Your task to perform on an android device: Search for Italian restaurants on Maps Image 0: 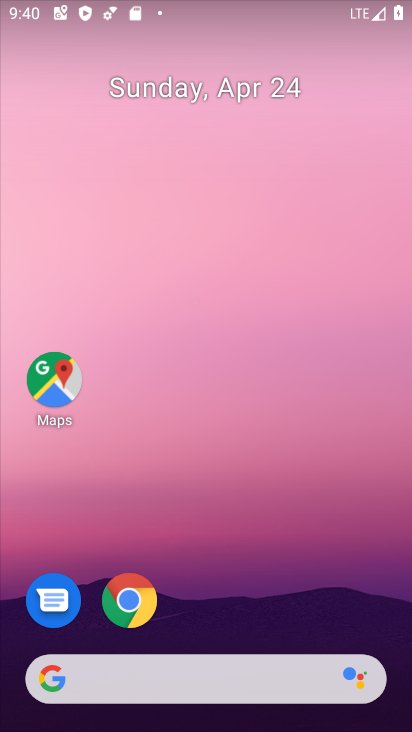
Step 0: click (136, 605)
Your task to perform on an android device: Search for Italian restaurants on Maps Image 1: 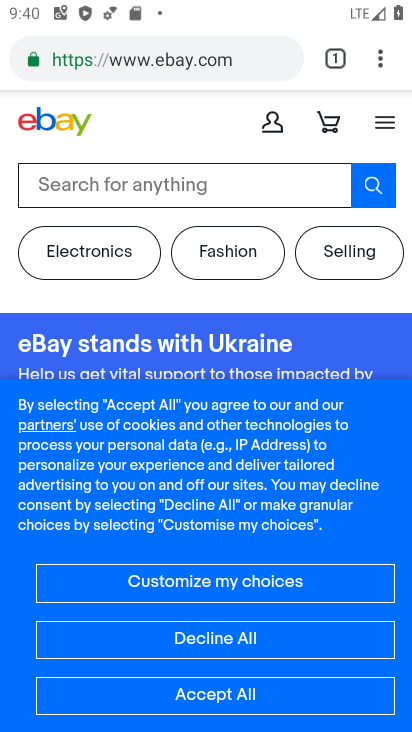
Step 1: press home button
Your task to perform on an android device: Search for Italian restaurants on Maps Image 2: 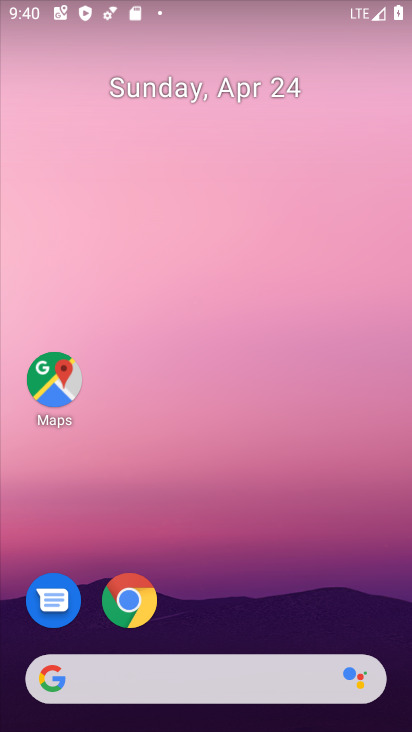
Step 2: click (63, 365)
Your task to perform on an android device: Search for Italian restaurants on Maps Image 3: 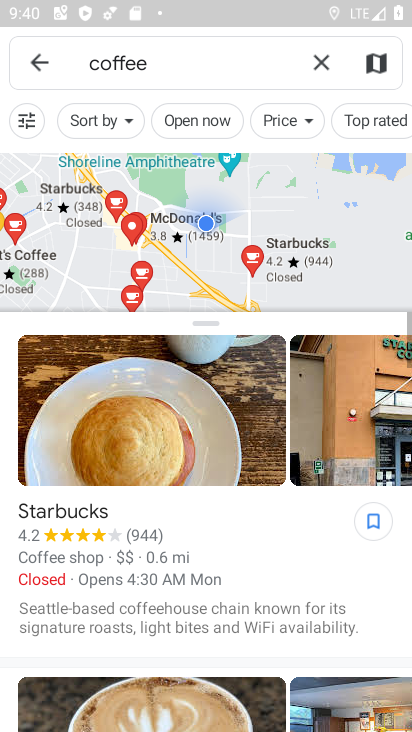
Step 3: click (320, 56)
Your task to perform on an android device: Search for Italian restaurants on Maps Image 4: 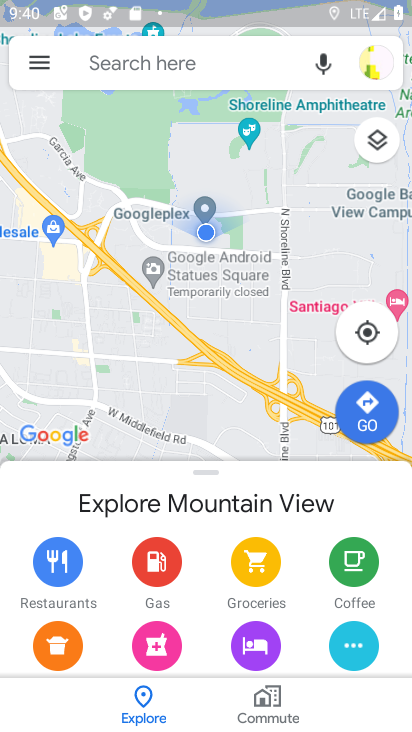
Step 4: click (178, 61)
Your task to perform on an android device: Search for Italian restaurants on Maps Image 5: 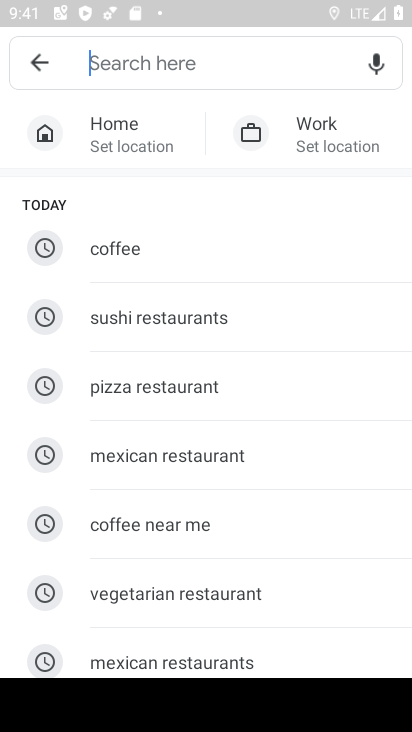
Step 5: type "italian restaurants"
Your task to perform on an android device: Search for Italian restaurants on Maps Image 6: 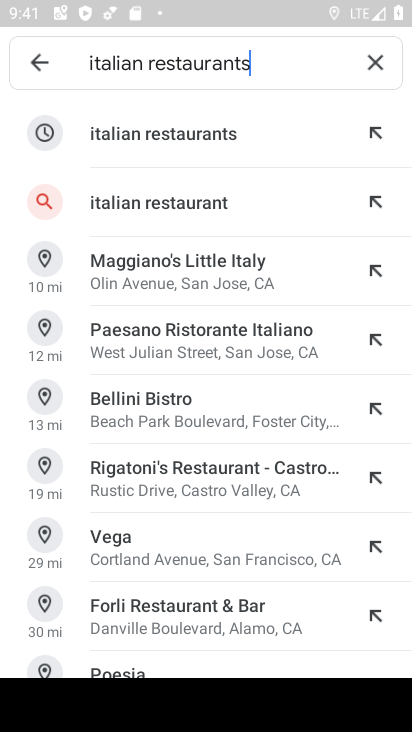
Step 6: click (223, 120)
Your task to perform on an android device: Search for Italian restaurants on Maps Image 7: 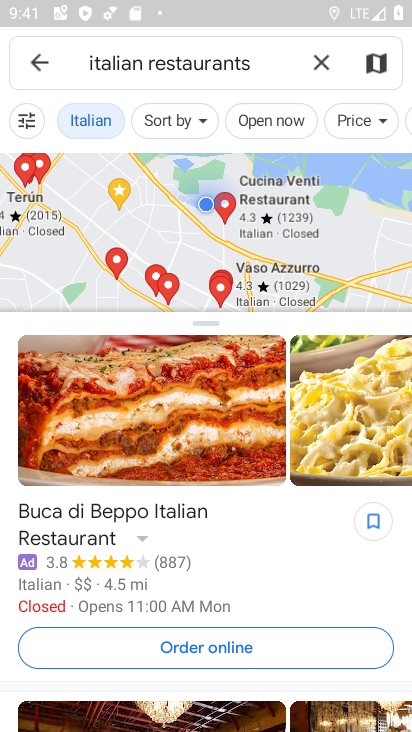
Step 7: task complete